Your task to perform on an android device: see sites visited before in the chrome app Image 0: 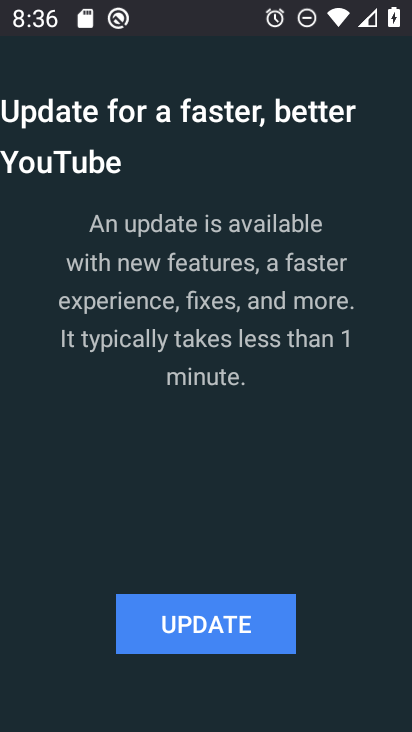
Step 0: press home button
Your task to perform on an android device: see sites visited before in the chrome app Image 1: 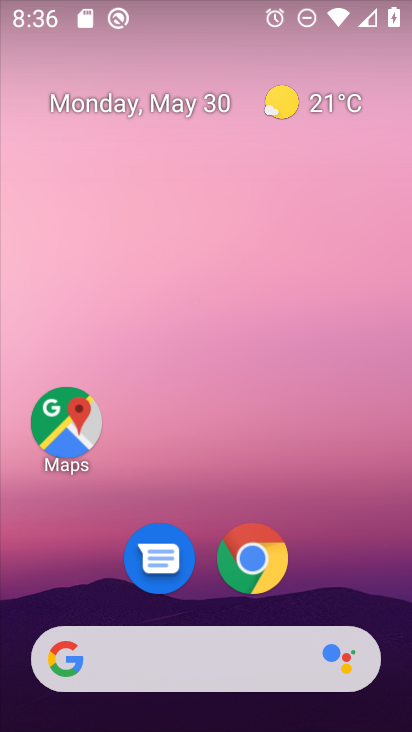
Step 1: drag from (344, 510) to (196, 69)
Your task to perform on an android device: see sites visited before in the chrome app Image 2: 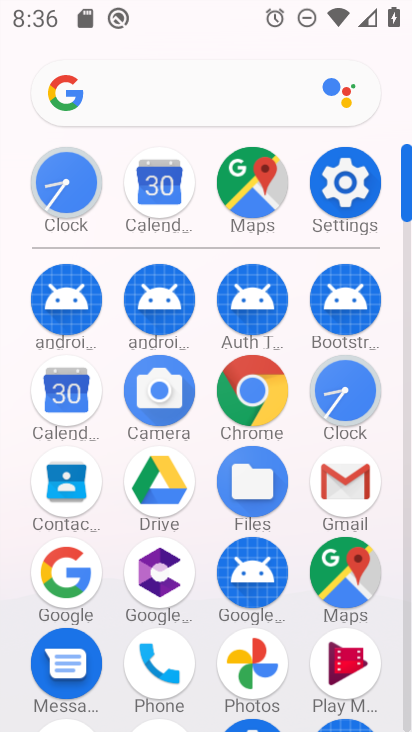
Step 2: click (258, 392)
Your task to perform on an android device: see sites visited before in the chrome app Image 3: 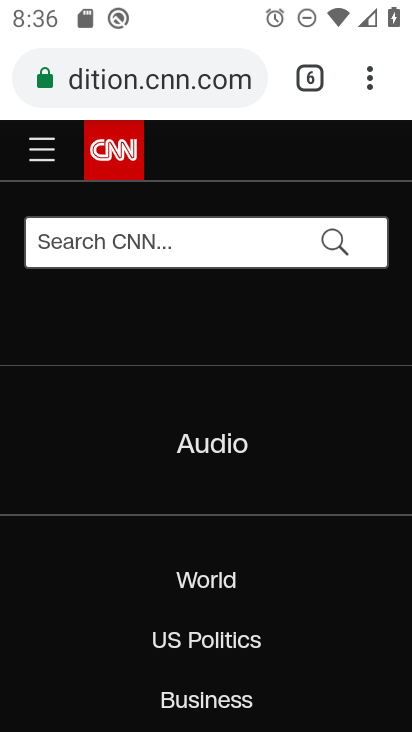
Step 3: click (370, 77)
Your task to perform on an android device: see sites visited before in the chrome app Image 4: 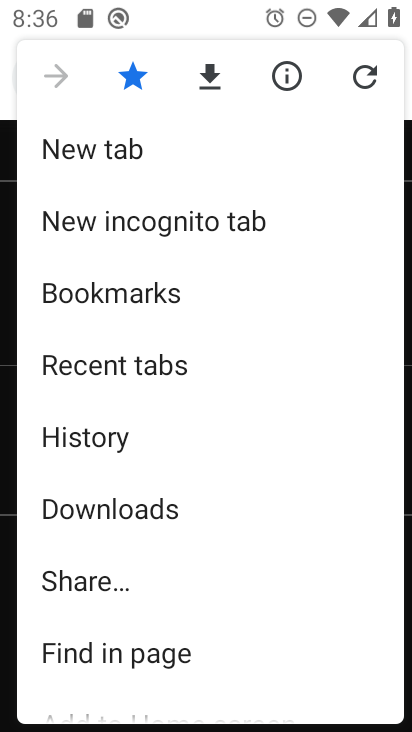
Step 4: click (91, 431)
Your task to perform on an android device: see sites visited before in the chrome app Image 5: 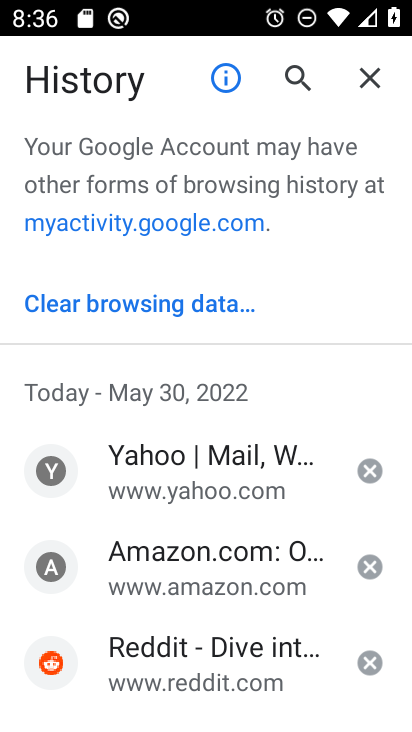
Step 5: task complete